Your task to perform on an android device: Open Google Chrome and open the bookmarks view Image 0: 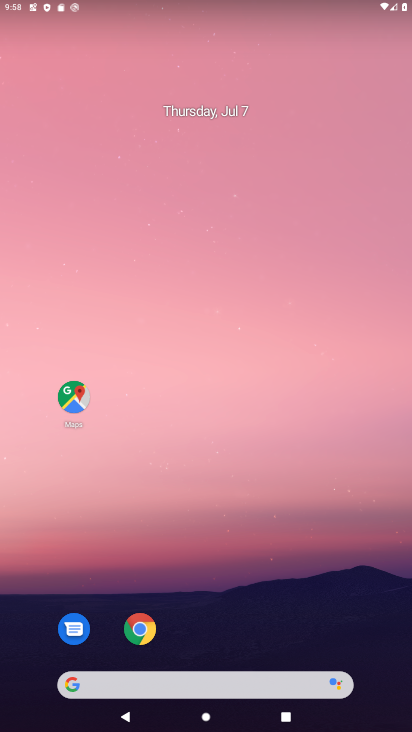
Step 0: drag from (208, 640) to (189, 87)
Your task to perform on an android device: Open Google Chrome and open the bookmarks view Image 1: 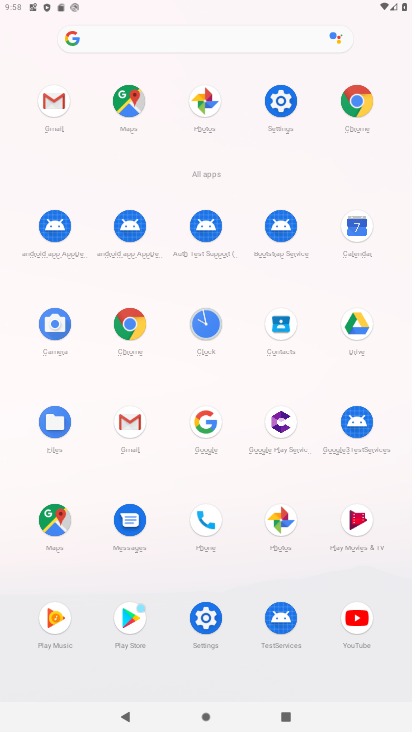
Step 1: click (128, 313)
Your task to perform on an android device: Open Google Chrome and open the bookmarks view Image 2: 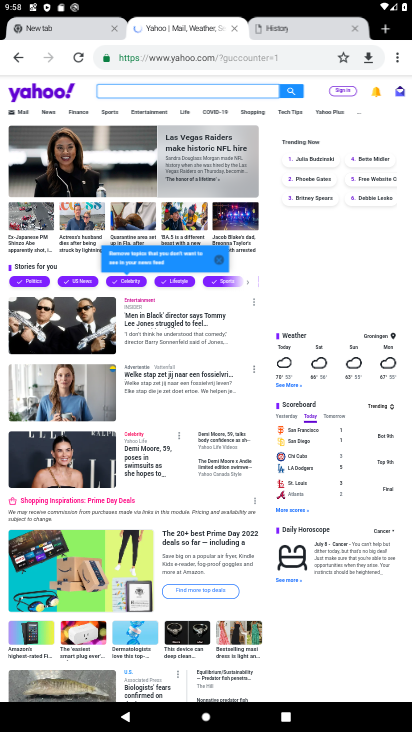
Step 2: click (392, 60)
Your task to perform on an android device: Open Google Chrome and open the bookmarks view Image 3: 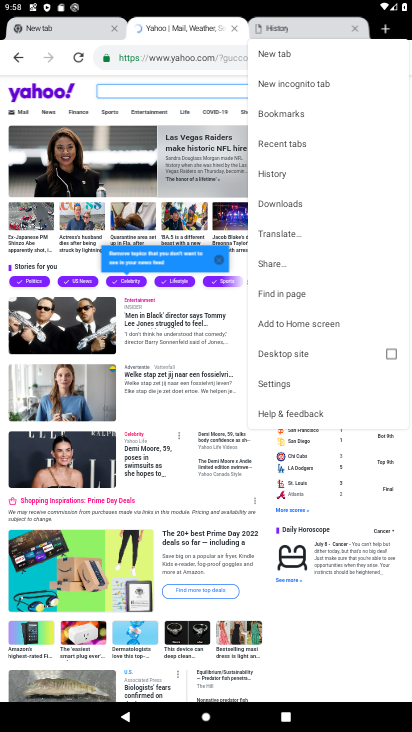
Step 3: click (270, 112)
Your task to perform on an android device: Open Google Chrome and open the bookmarks view Image 4: 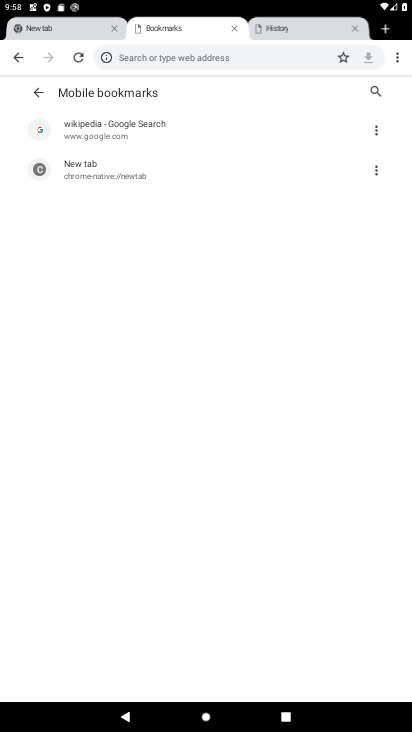
Step 4: task complete